Your task to perform on an android device: change the clock style Image 0: 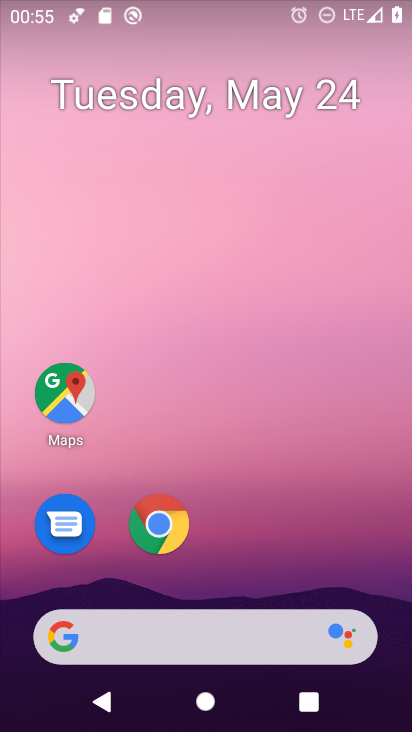
Step 0: drag from (217, 579) to (221, 60)
Your task to perform on an android device: change the clock style Image 1: 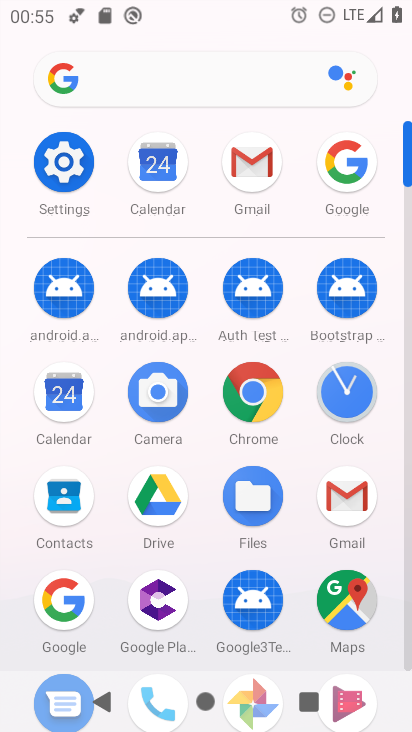
Step 1: click (336, 412)
Your task to perform on an android device: change the clock style Image 2: 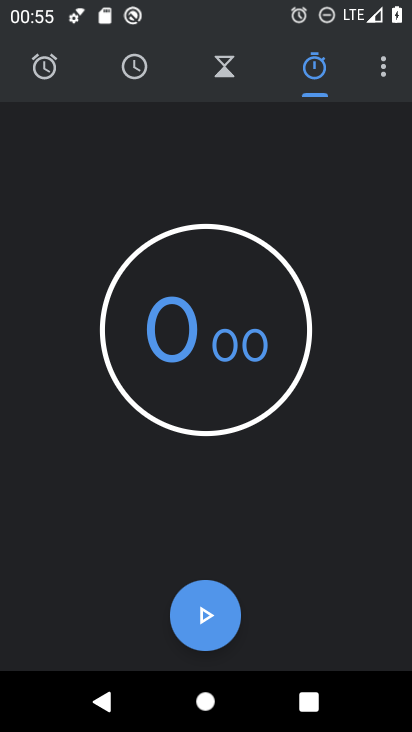
Step 2: click (370, 67)
Your task to perform on an android device: change the clock style Image 3: 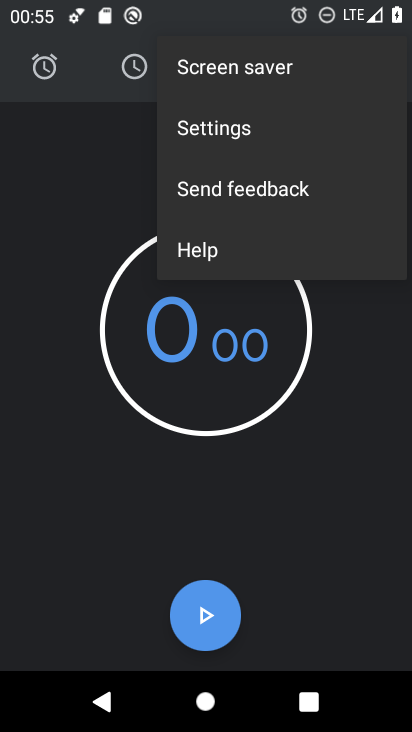
Step 3: click (252, 134)
Your task to perform on an android device: change the clock style Image 4: 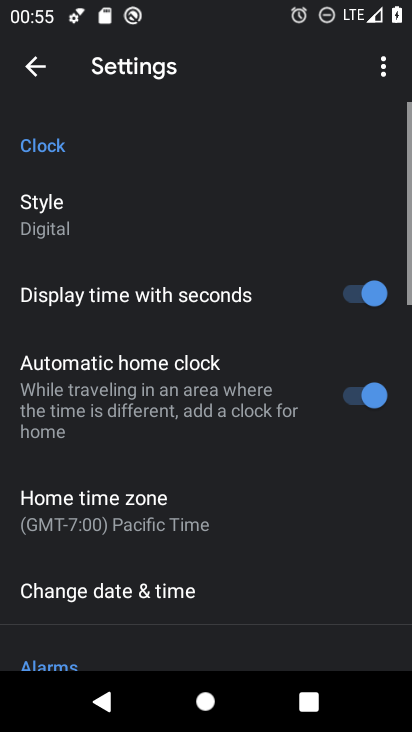
Step 4: click (94, 222)
Your task to perform on an android device: change the clock style Image 5: 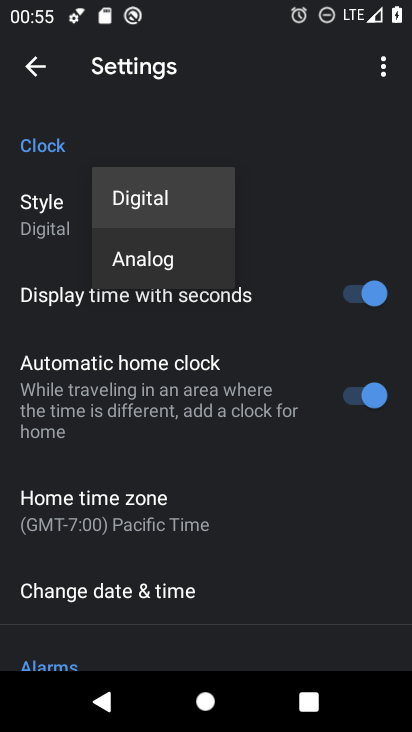
Step 5: click (139, 256)
Your task to perform on an android device: change the clock style Image 6: 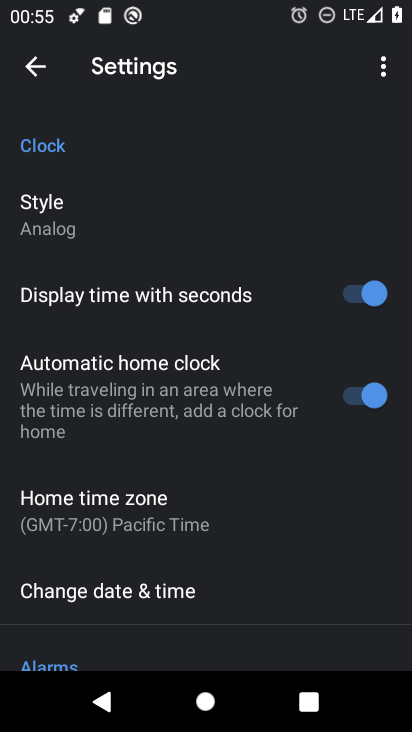
Step 6: task complete